Your task to perform on an android device: Open maps Image 0: 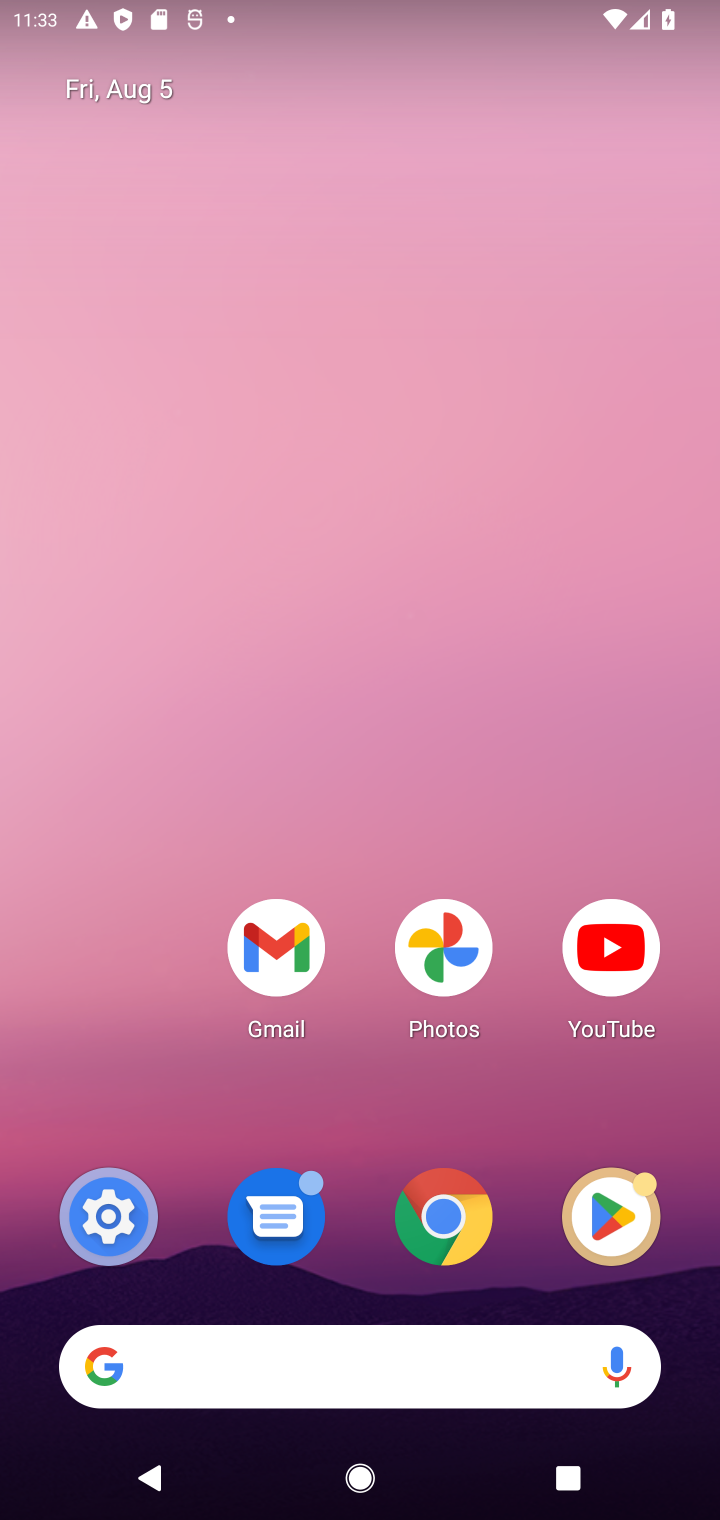
Step 0: drag from (378, 1287) to (426, 12)
Your task to perform on an android device: Open maps Image 1: 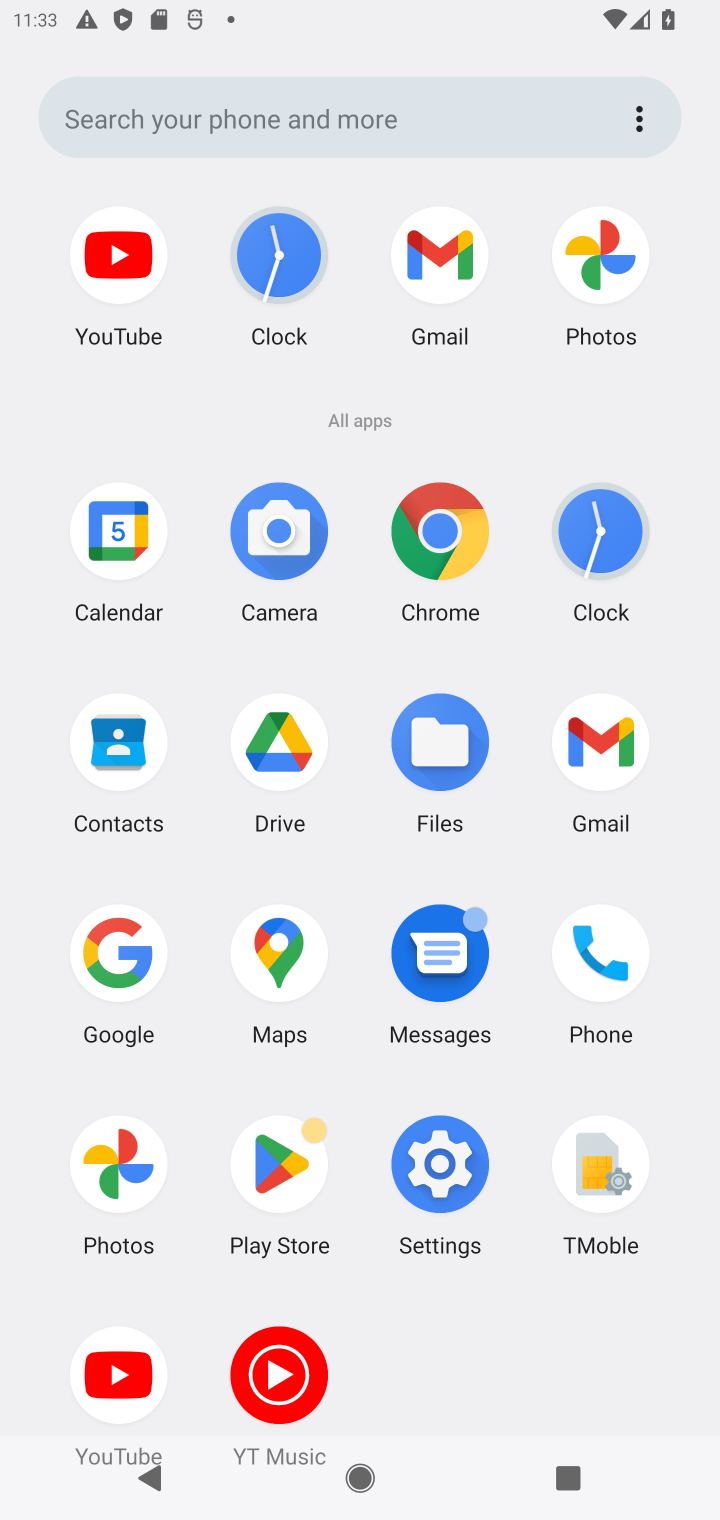
Step 1: click (261, 955)
Your task to perform on an android device: Open maps Image 2: 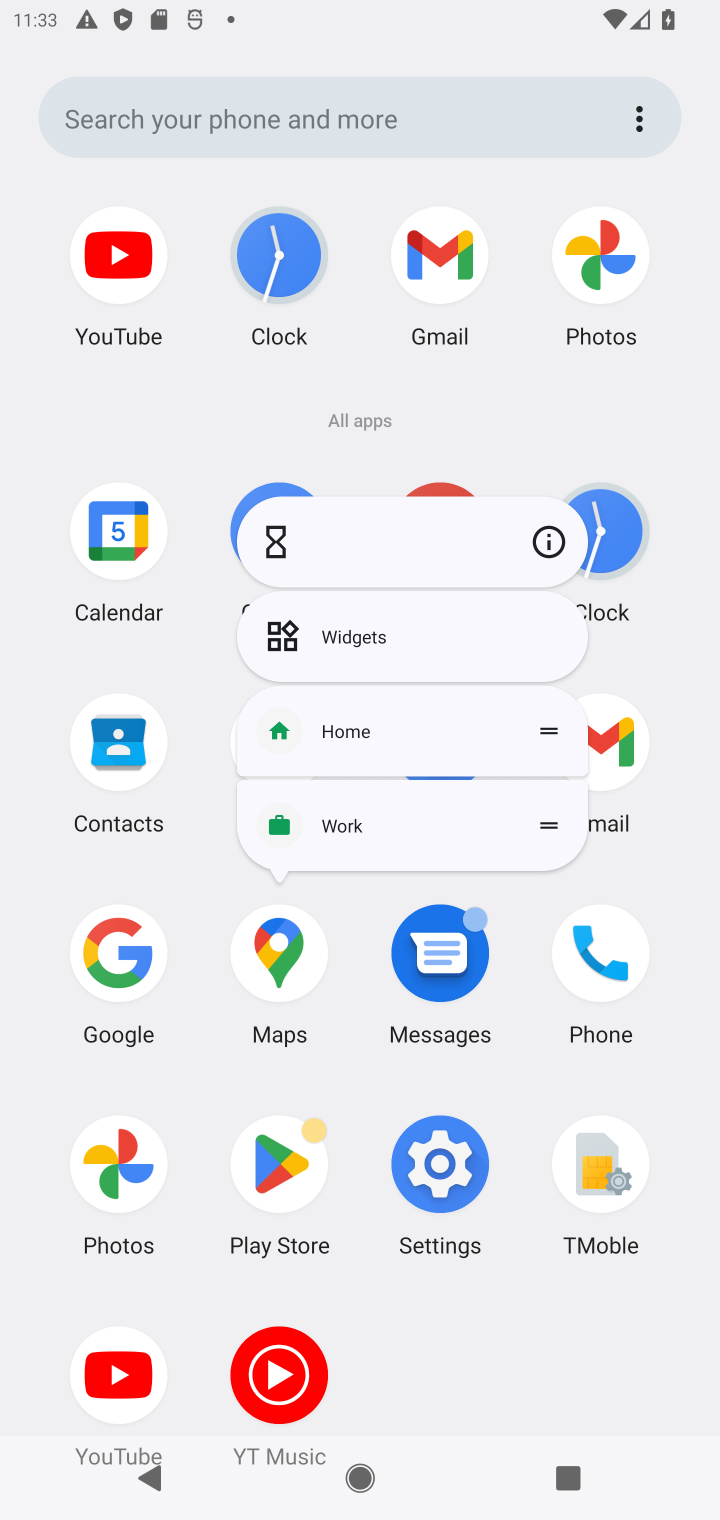
Step 2: click (265, 964)
Your task to perform on an android device: Open maps Image 3: 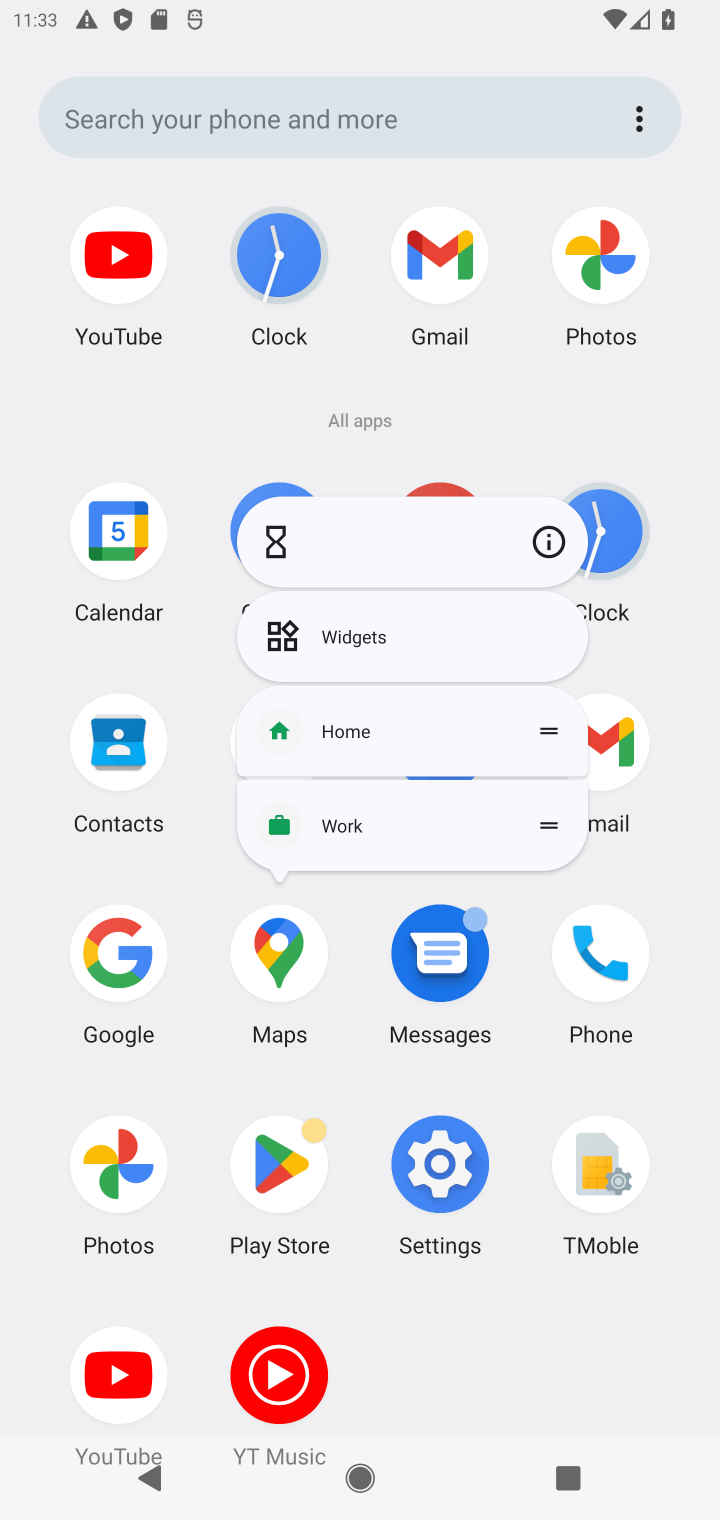
Step 3: click (324, 997)
Your task to perform on an android device: Open maps Image 4: 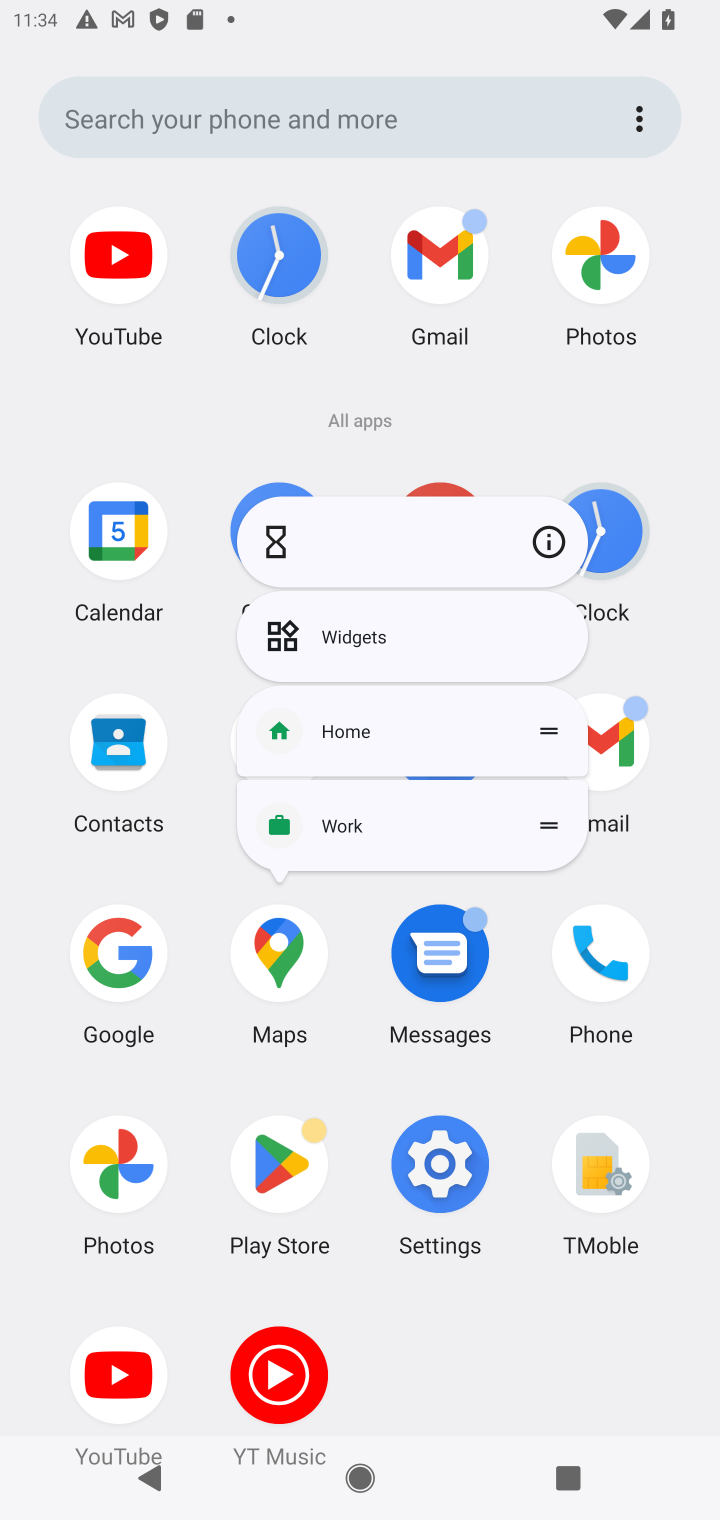
Step 4: click (241, 948)
Your task to perform on an android device: Open maps Image 5: 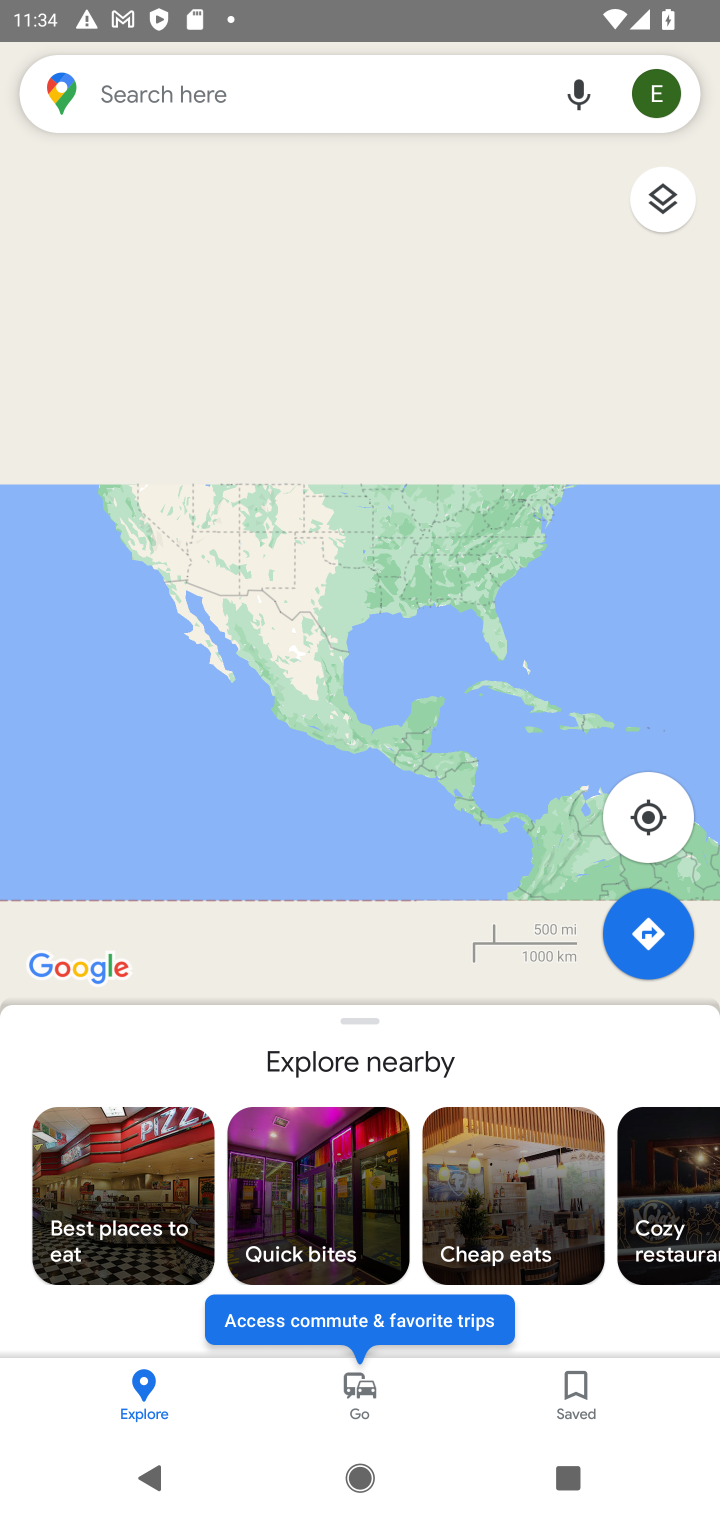
Step 5: task complete